Your task to perform on an android device: toggle wifi Image 0: 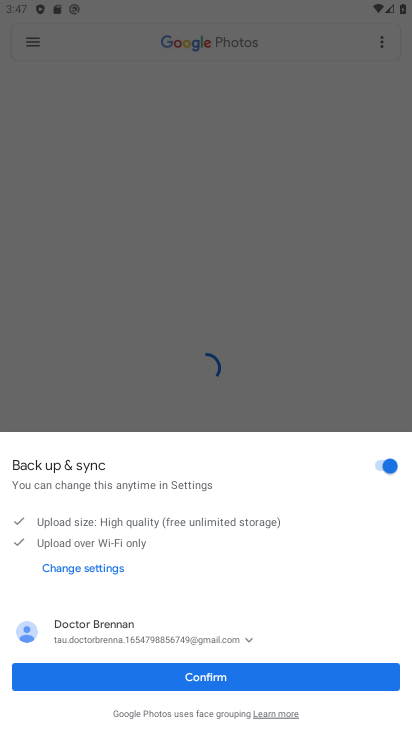
Step 0: press home button
Your task to perform on an android device: toggle wifi Image 1: 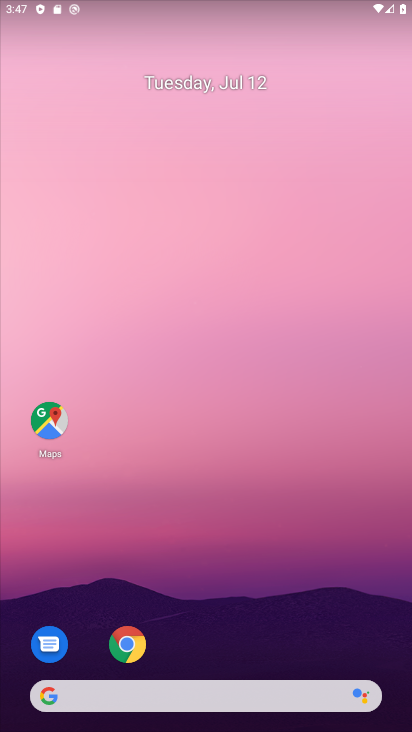
Step 1: drag from (306, 564) to (339, 72)
Your task to perform on an android device: toggle wifi Image 2: 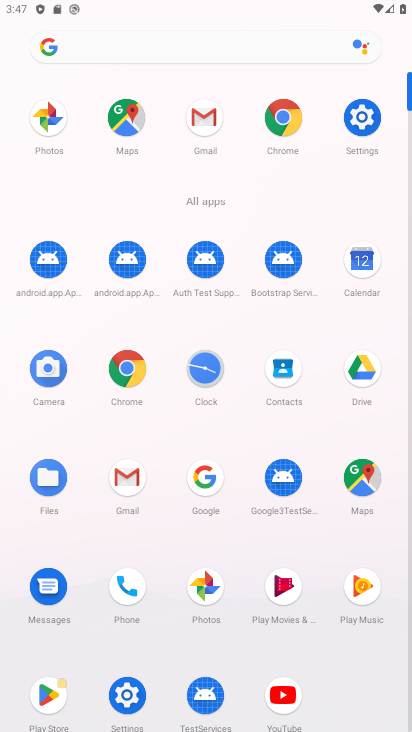
Step 2: click (365, 133)
Your task to perform on an android device: toggle wifi Image 3: 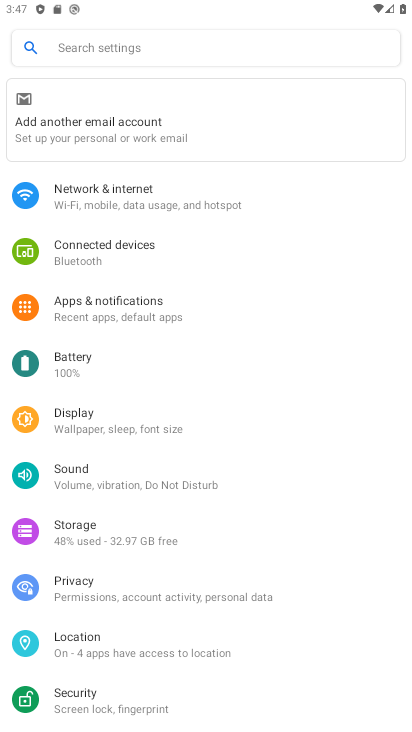
Step 3: click (200, 186)
Your task to perform on an android device: toggle wifi Image 4: 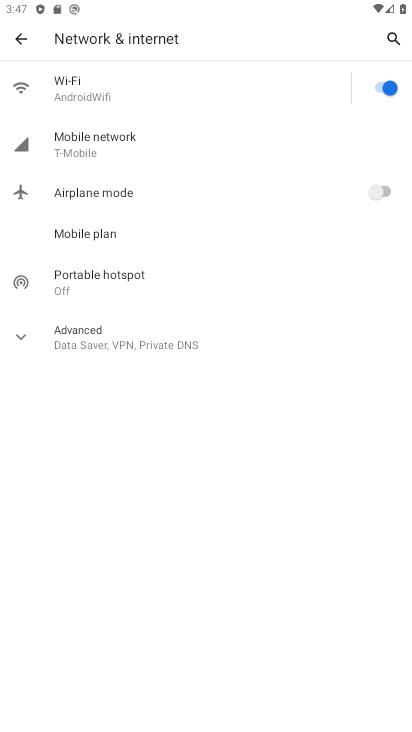
Step 4: click (382, 91)
Your task to perform on an android device: toggle wifi Image 5: 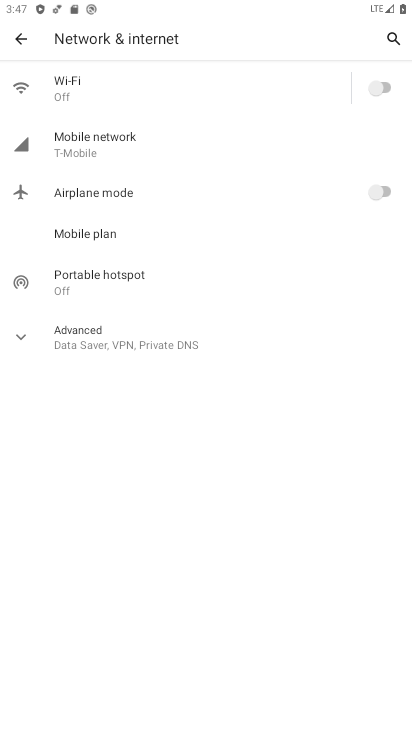
Step 5: task complete